Your task to perform on an android device: Open location settings Image 0: 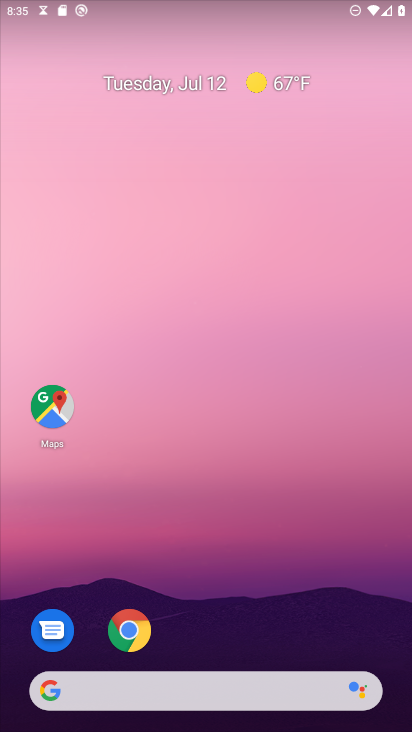
Step 0: drag from (255, 630) to (117, 97)
Your task to perform on an android device: Open location settings Image 1: 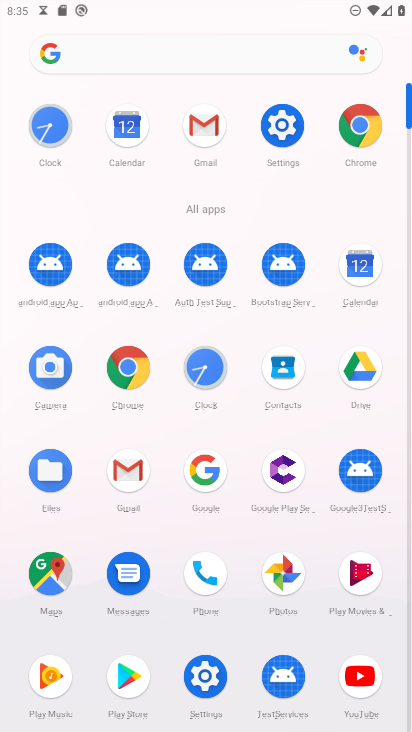
Step 1: click (277, 135)
Your task to perform on an android device: Open location settings Image 2: 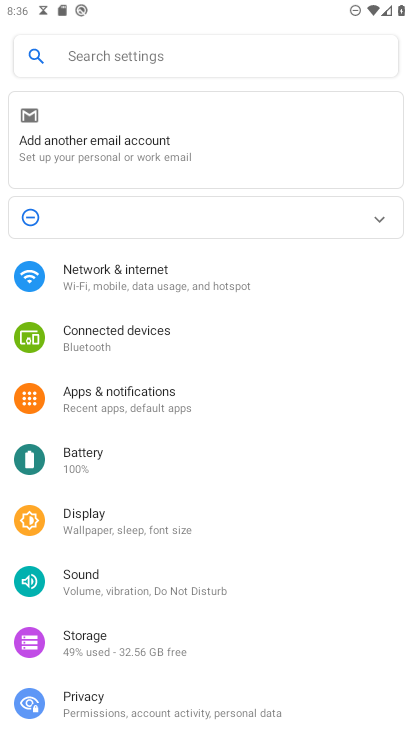
Step 2: drag from (229, 660) to (180, 301)
Your task to perform on an android device: Open location settings Image 3: 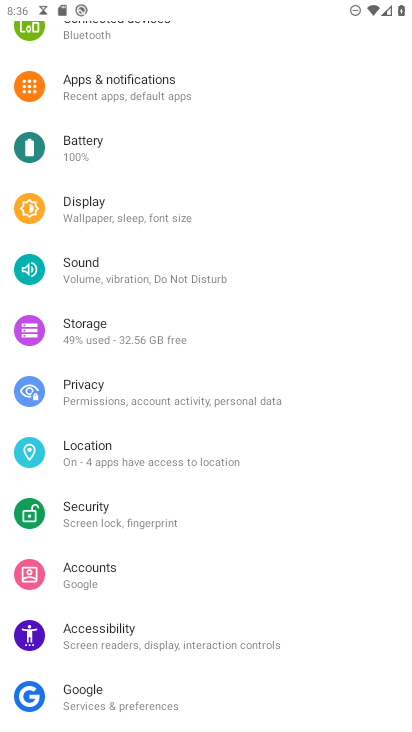
Step 3: click (218, 462)
Your task to perform on an android device: Open location settings Image 4: 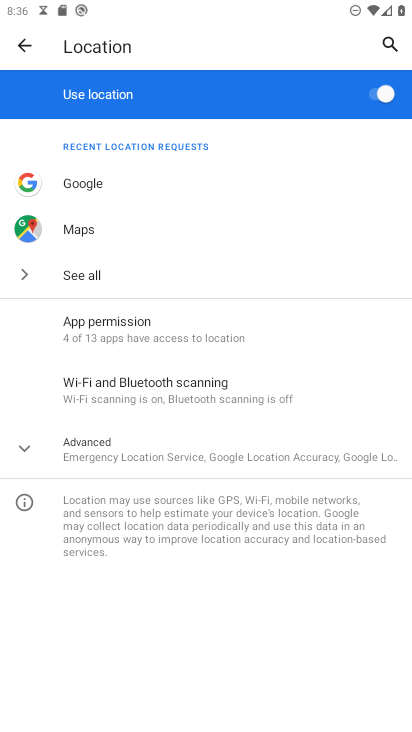
Step 4: task complete